Your task to perform on an android device: Play the latest video from the New York Times Image 0: 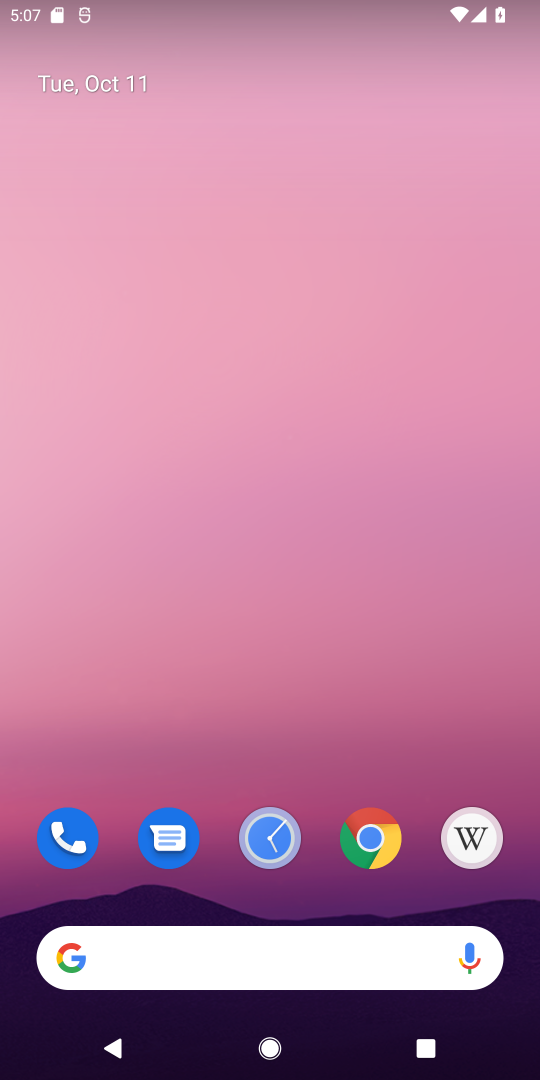
Step 0: click (370, 853)
Your task to perform on an android device: Play the latest video from the New York Times Image 1: 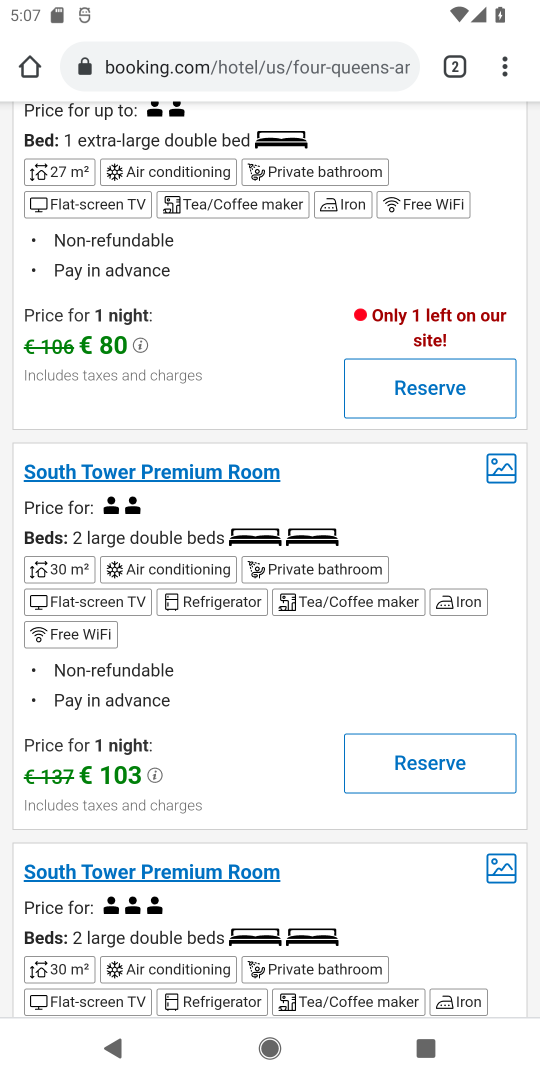
Step 1: click (220, 63)
Your task to perform on an android device: Play the latest video from the New York Times Image 2: 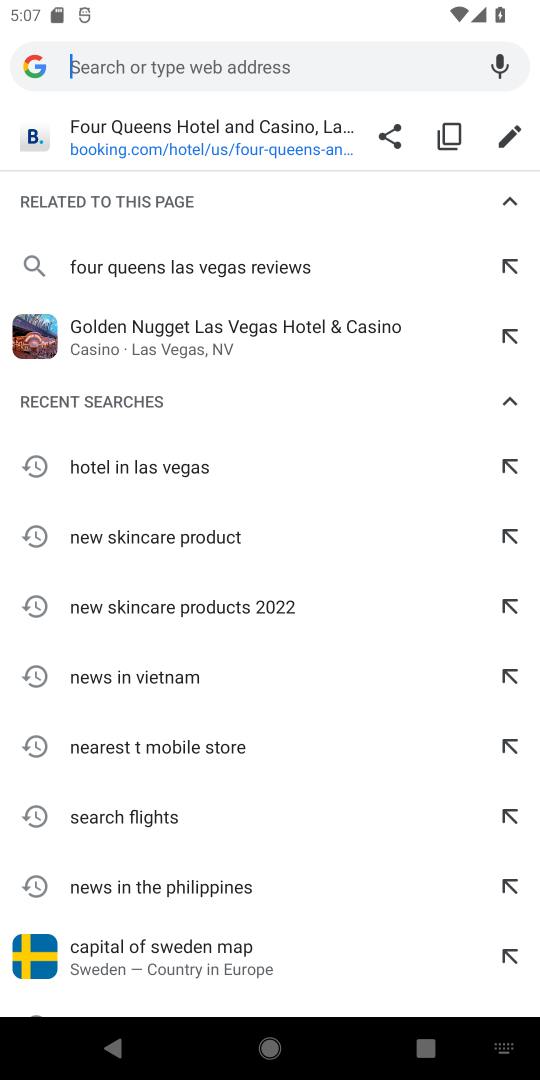
Step 2: type "latest video from the new york times"
Your task to perform on an android device: Play the latest video from the New York Times Image 3: 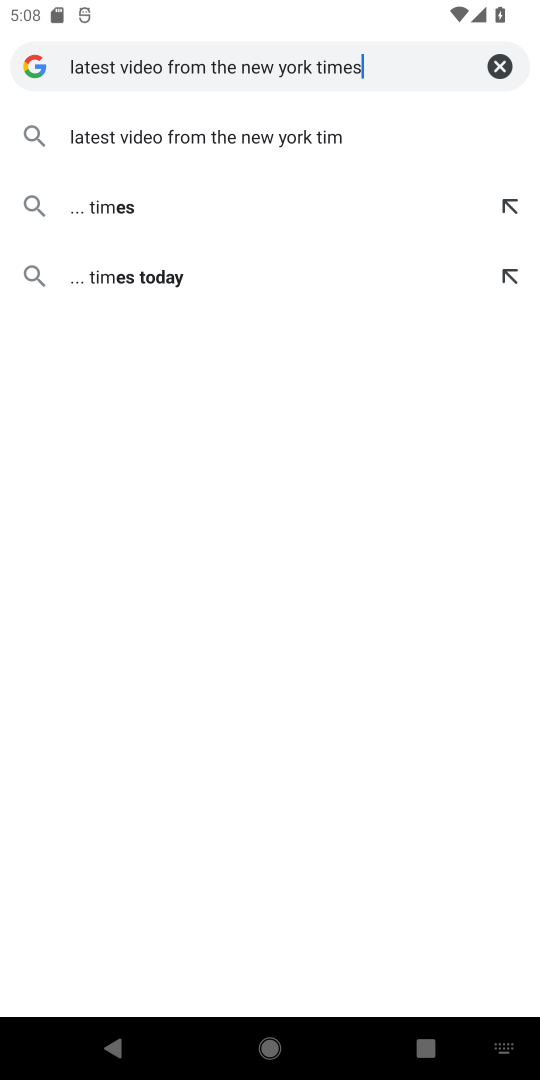
Step 3: type ""
Your task to perform on an android device: Play the latest video from the New York Times Image 4: 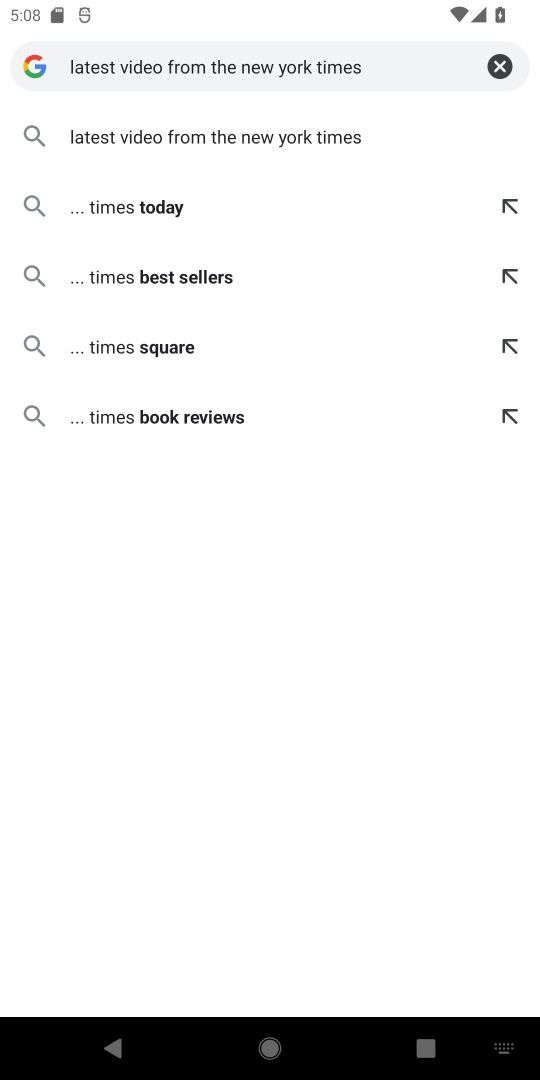
Step 4: click (332, 138)
Your task to perform on an android device: Play the latest video from the New York Times Image 5: 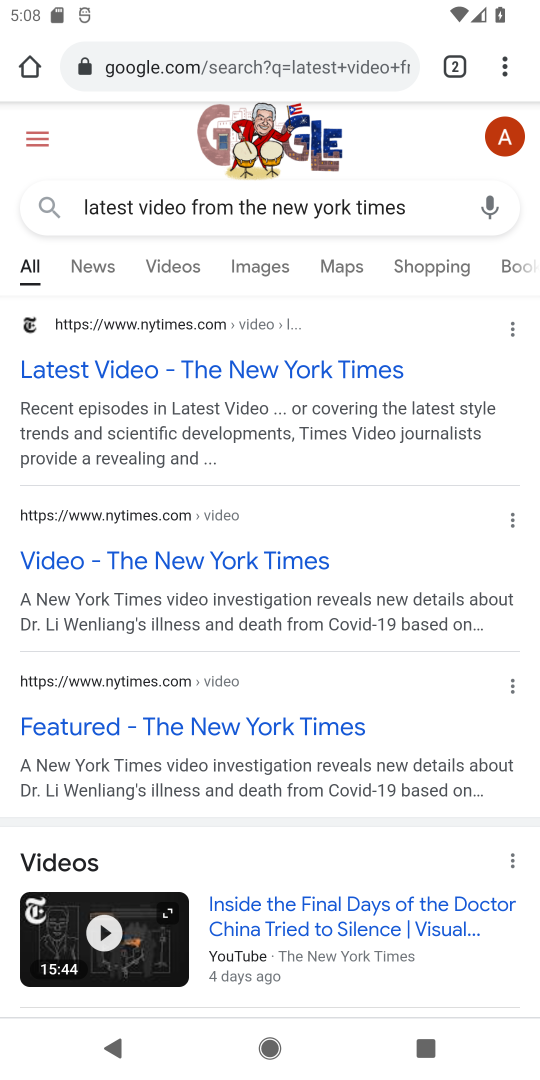
Step 5: click (234, 365)
Your task to perform on an android device: Play the latest video from the New York Times Image 6: 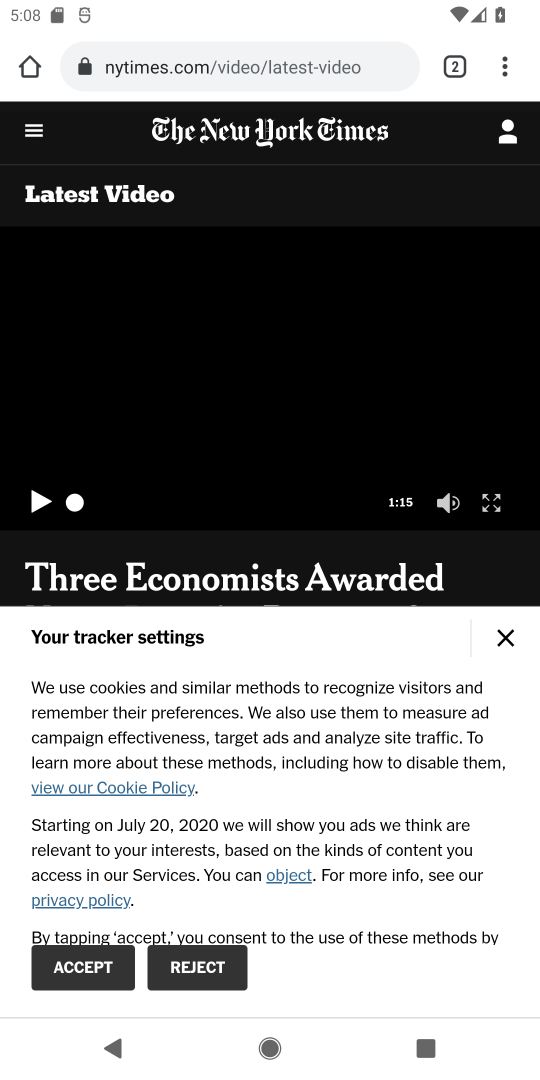
Step 6: click (508, 636)
Your task to perform on an android device: Play the latest video from the New York Times Image 7: 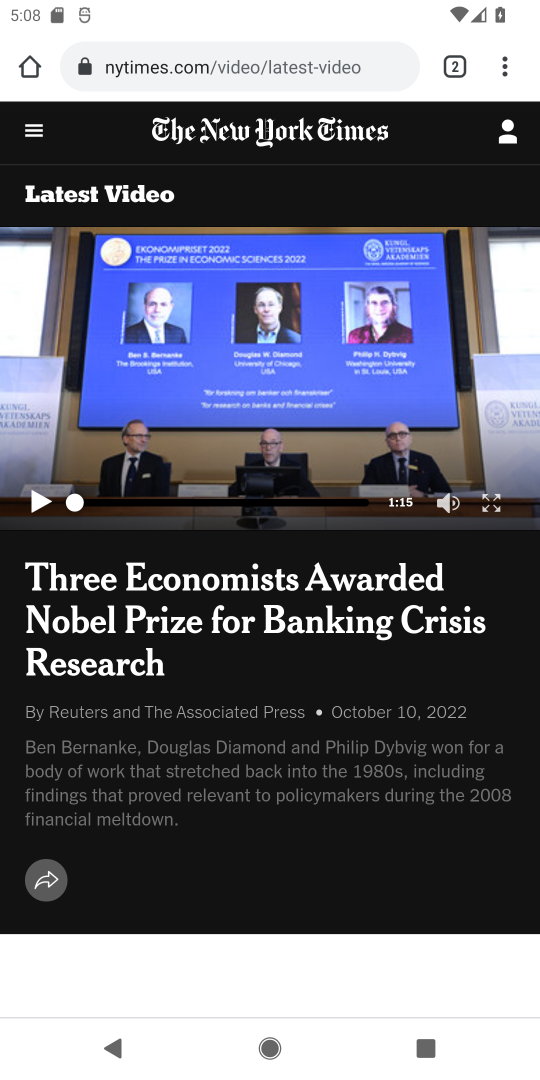
Step 7: task complete